Your task to perform on an android device: turn off location history Image 0: 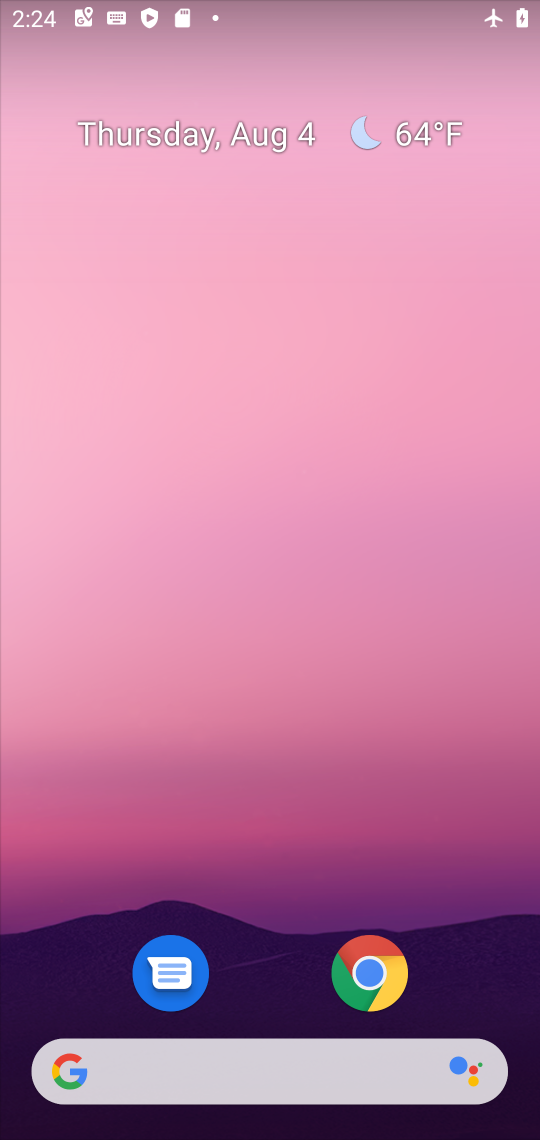
Step 0: drag from (244, 1033) to (291, 40)
Your task to perform on an android device: turn off location history Image 1: 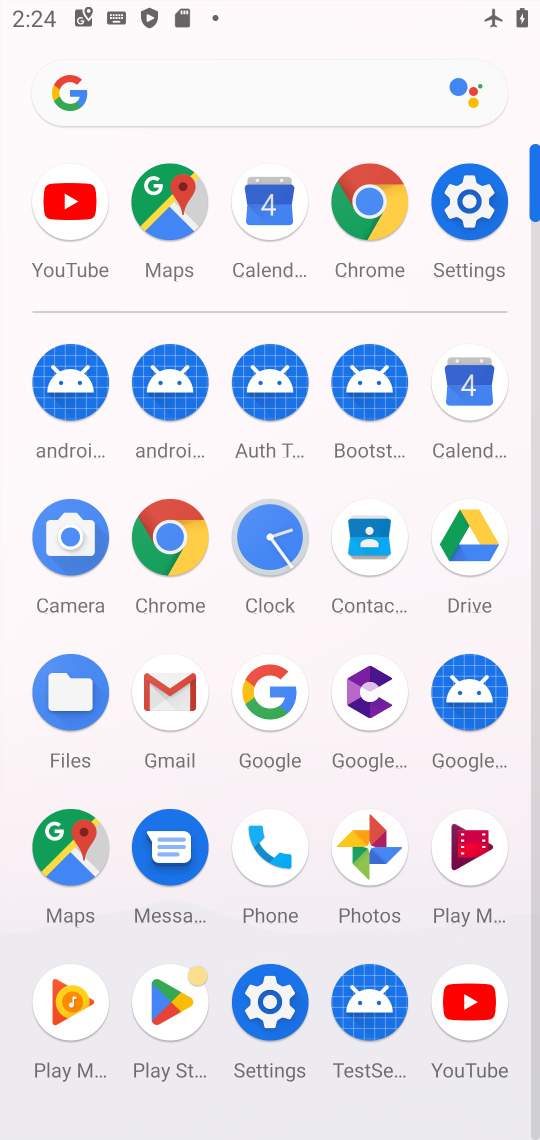
Step 1: click (279, 1009)
Your task to perform on an android device: turn off location history Image 2: 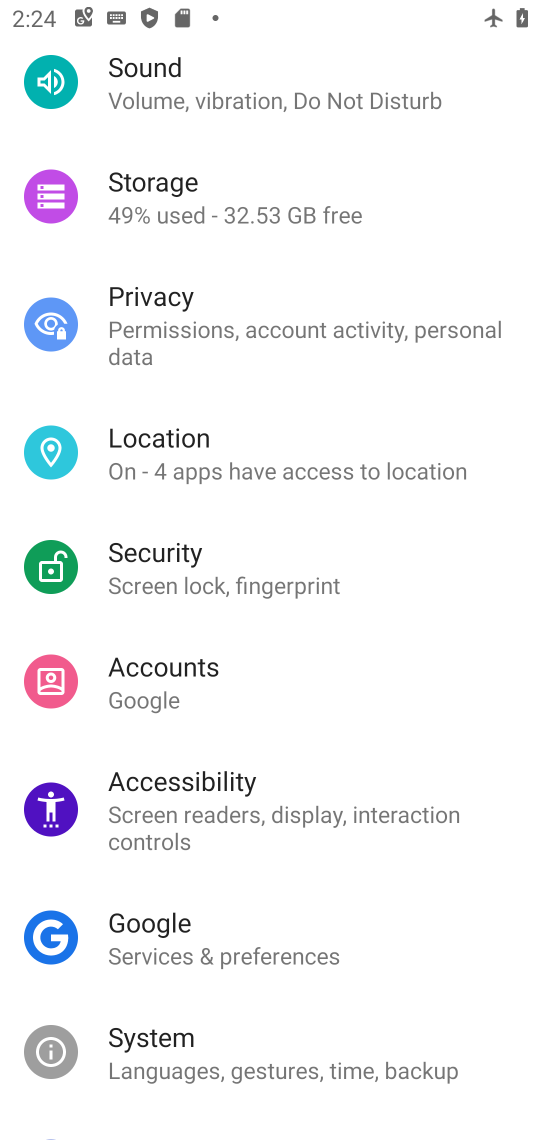
Step 2: click (149, 431)
Your task to perform on an android device: turn off location history Image 3: 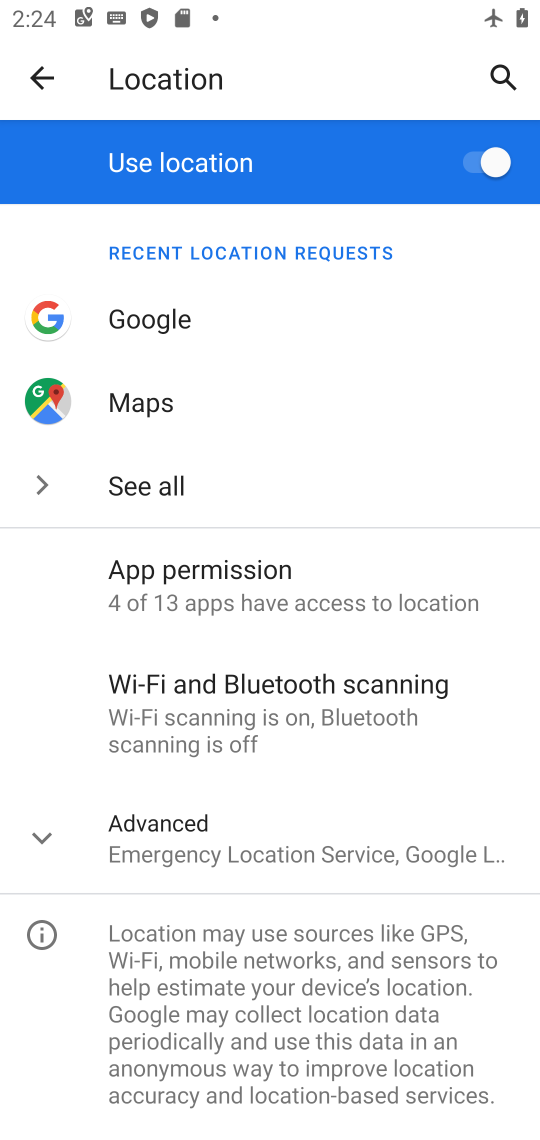
Step 3: click (175, 830)
Your task to perform on an android device: turn off location history Image 4: 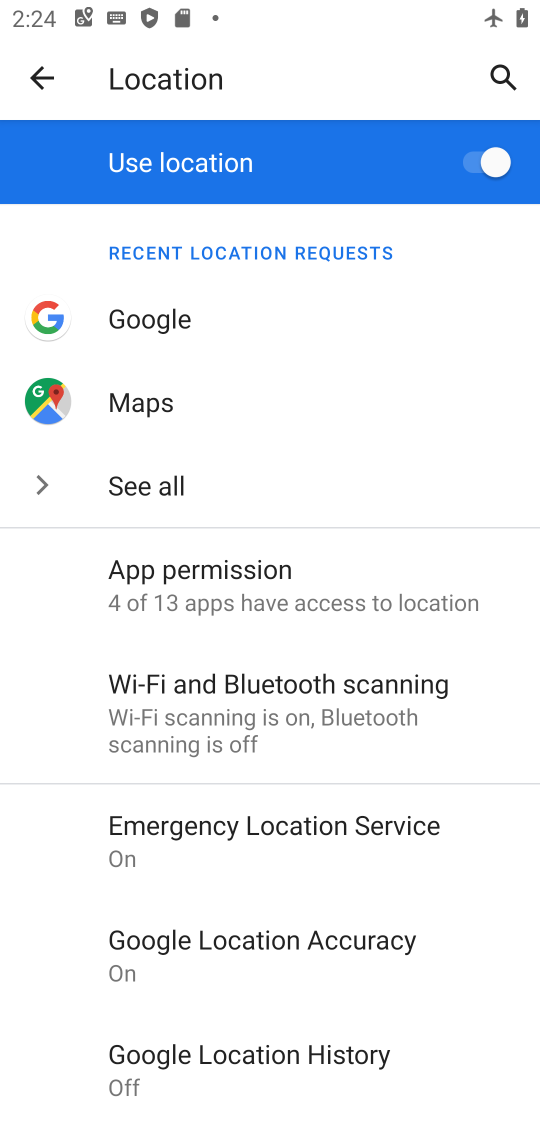
Step 4: click (278, 1048)
Your task to perform on an android device: turn off location history Image 5: 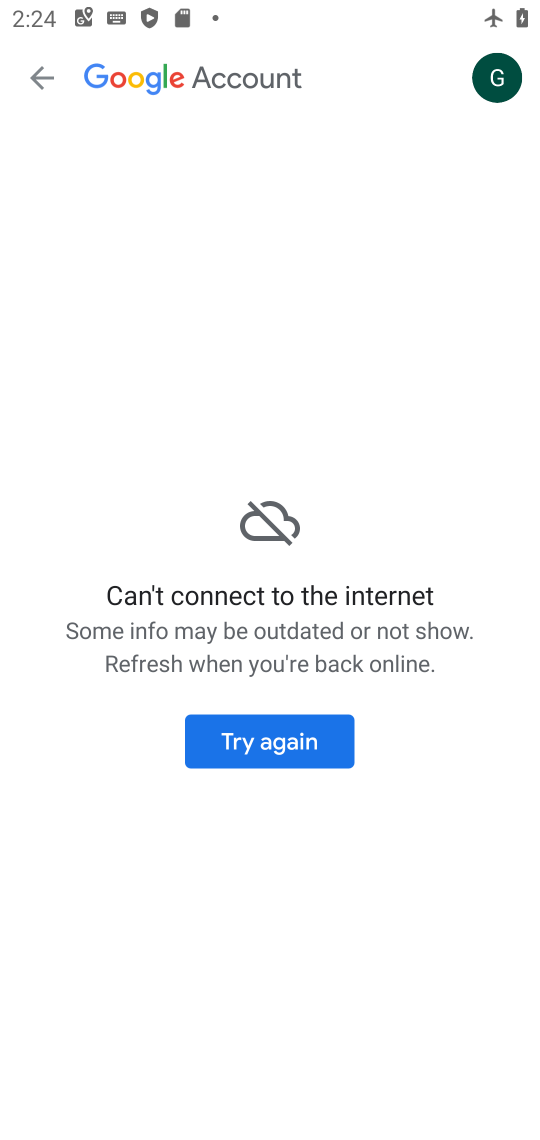
Step 5: click (317, 751)
Your task to perform on an android device: turn off location history Image 6: 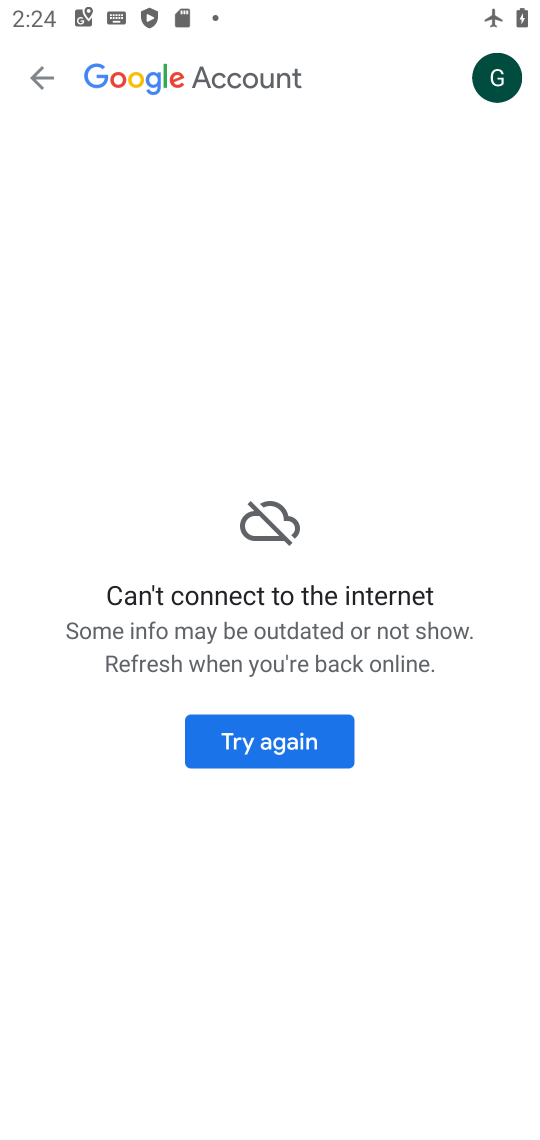
Step 6: task complete